Your task to perform on an android device: Open CNN.com Image 0: 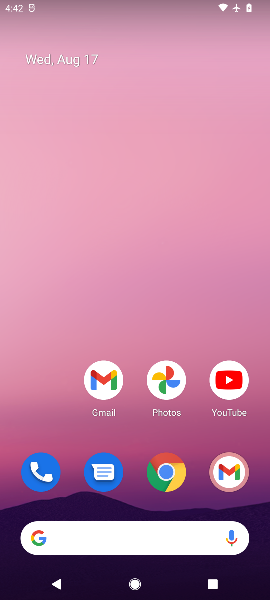
Step 0: click (166, 476)
Your task to perform on an android device: Open CNN.com Image 1: 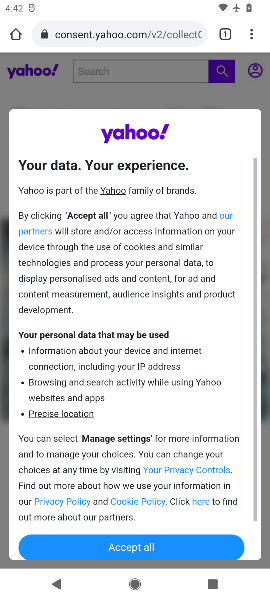
Step 1: click (143, 29)
Your task to perform on an android device: Open CNN.com Image 2: 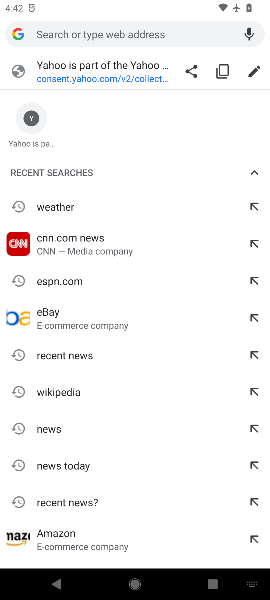
Step 2: type "CNN.com"
Your task to perform on an android device: Open CNN.com Image 3: 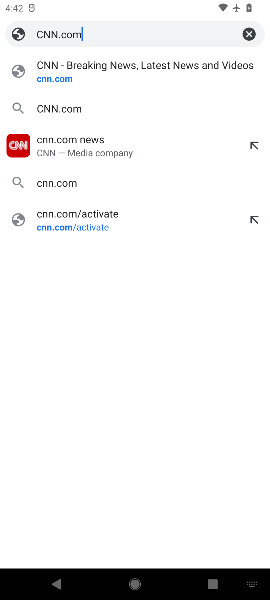
Step 3: click (110, 75)
Your task to perform on an android device: Open CNN.com Image 4: 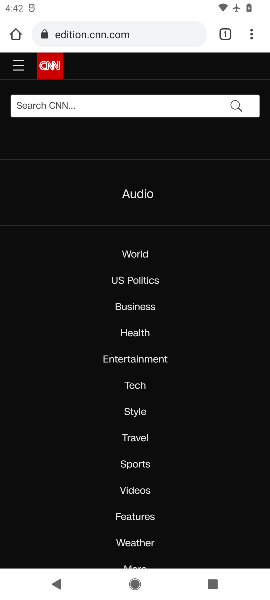
Step 4: task complete